Your task to perform on an android device: open app "The Home Depot" (install if not already installed) and go to login screen Image 0: 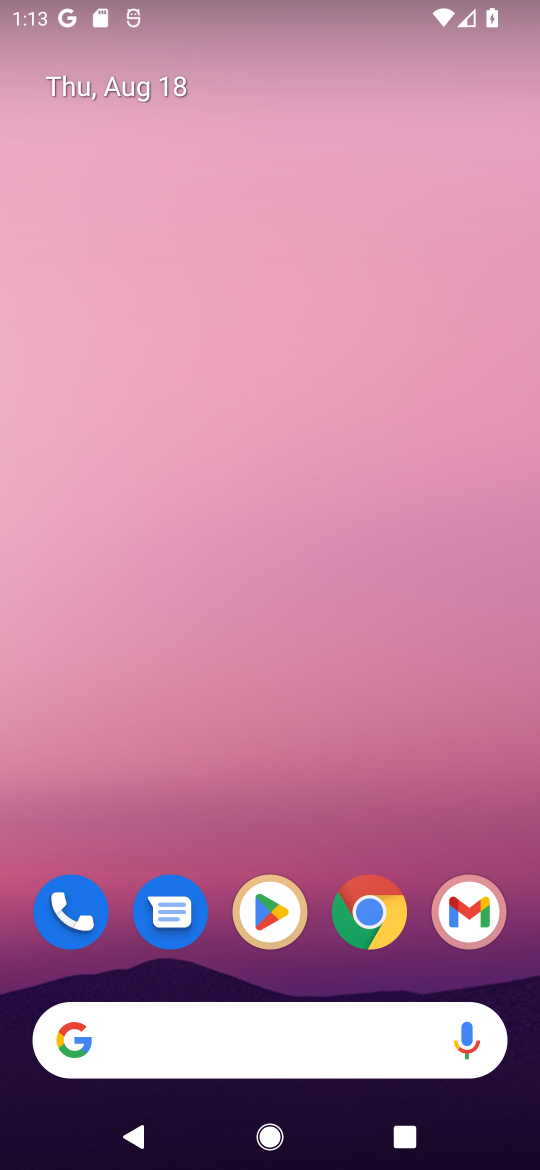
Step 0: click (274, 907)
Your task to perform on an android device: open app "The Home Depot" (install if not already installed) and go to login screen Image 1: 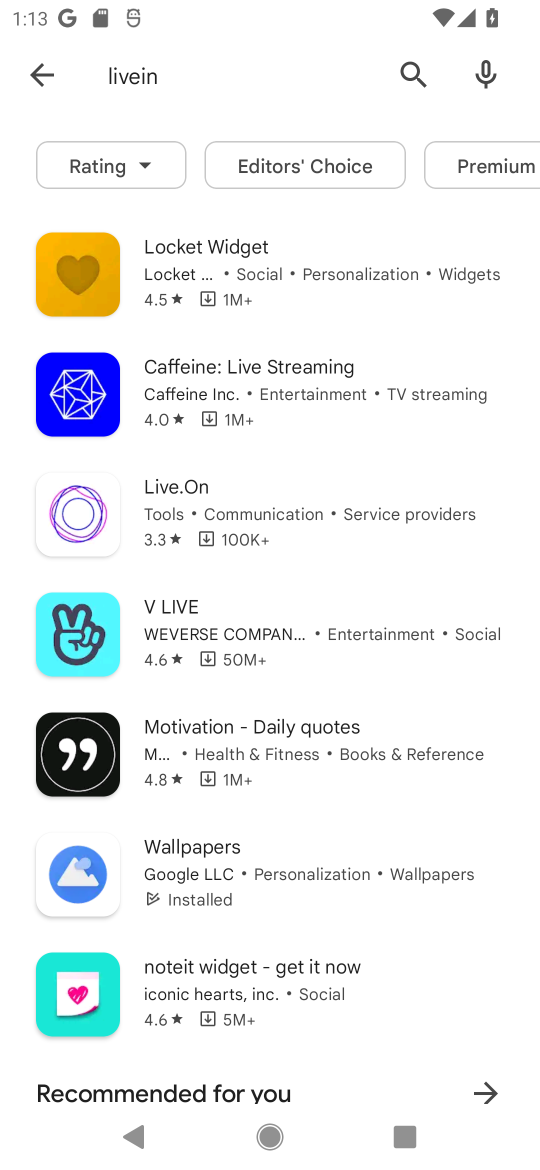
Step 1: click (397, 81)
Your task to perform on an android device: open app "The Home Depot" (install if not already installed) and go to login screen Image 2: 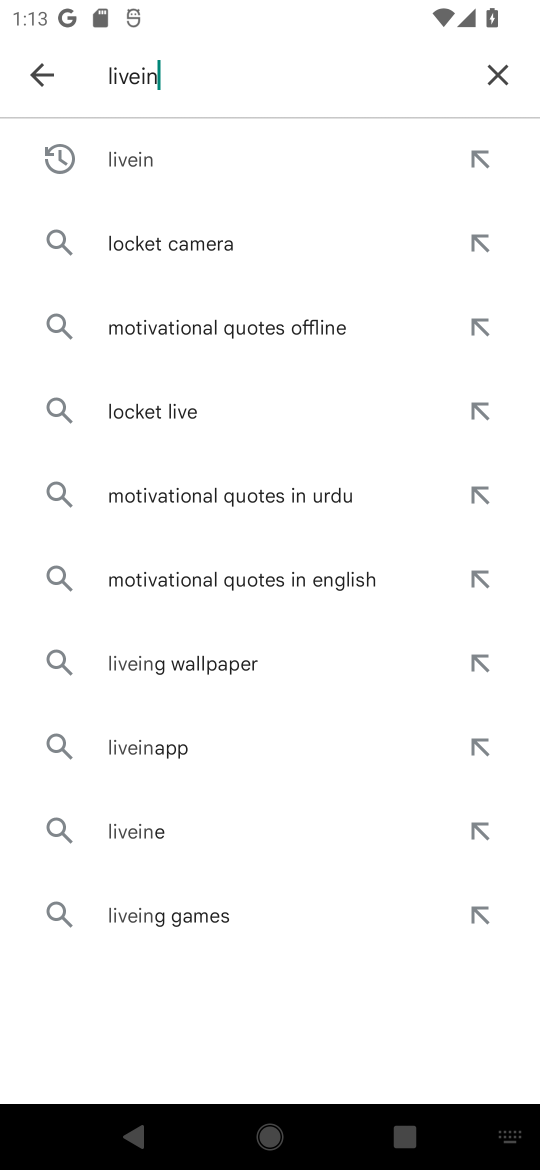
Step 2: click (482, 81)
Your task to perform on an android device: open app "The Home Depot" (install if not already installed) and go to login screen Image 3: 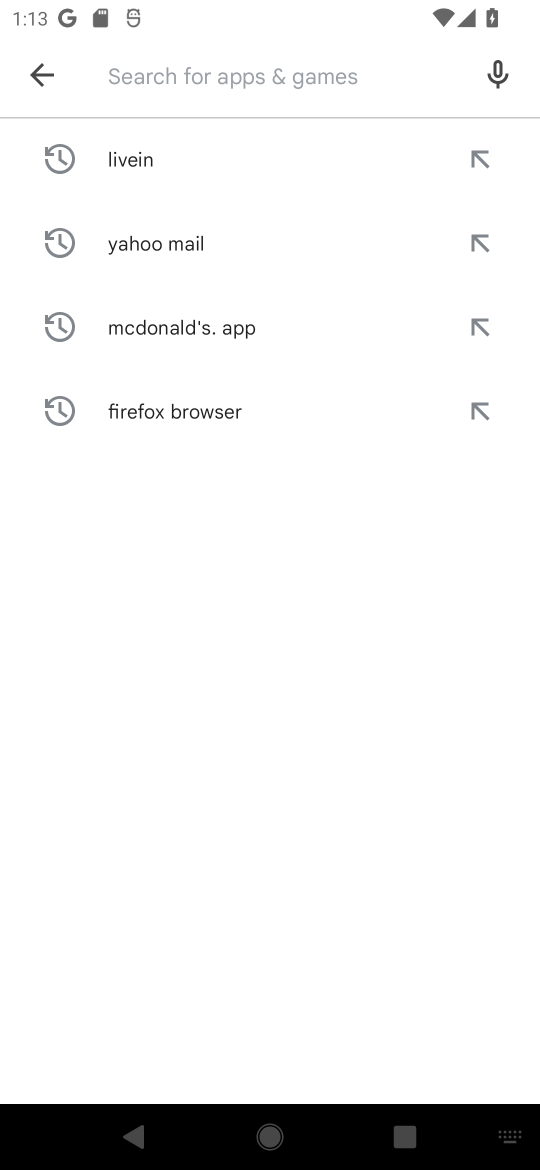
Step 3: click (191, 82)
Your task to perform on an android device: open app "The Home Depot" (install if not already installed) and go to login screen Image 4: 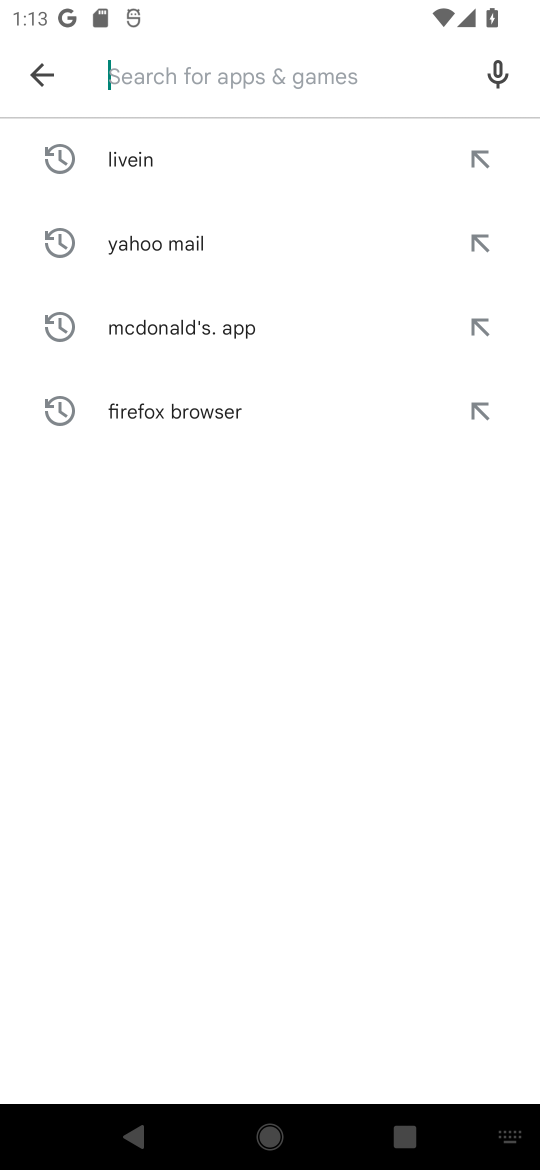
Step 4: type "The Home Depot"
Your task to perform on an android device: open app "The Home Depot" (install if not already installed) and go to login screen Image 5: 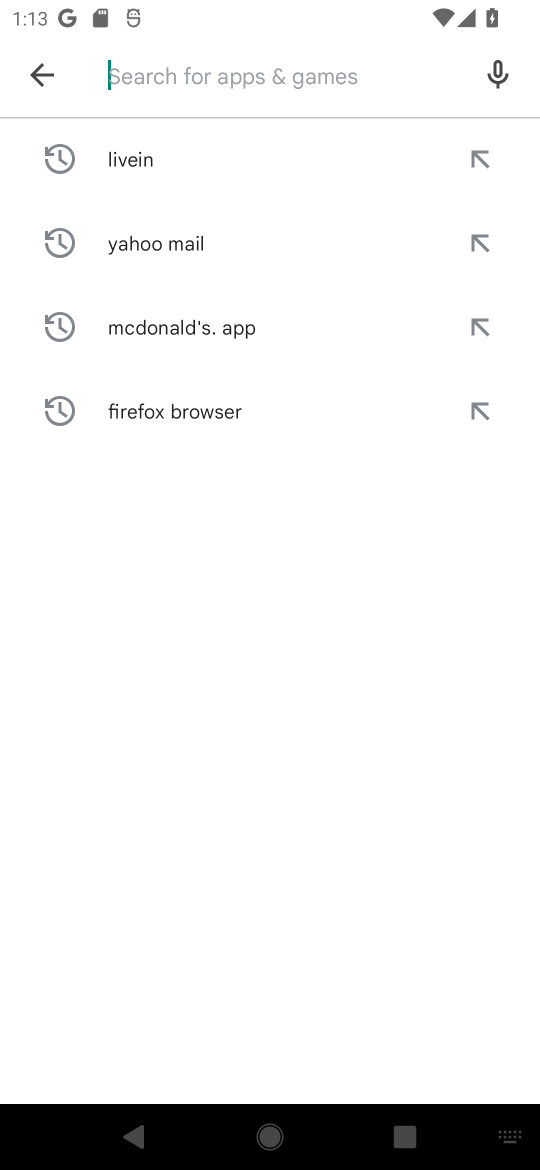
Step 5: click (325, 744)
Your task to perform on an android device: open app "The Home Depot" (install if not already installed) and go to login screen Image 6: 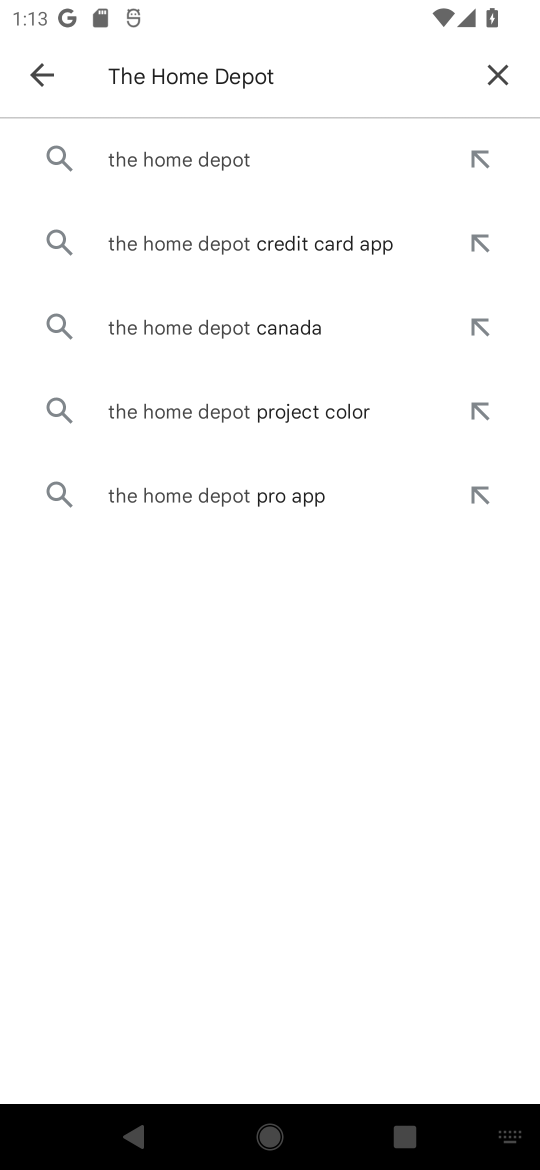
Step 6: click (176, 151)
Your task to perform on an android device: open app "The Home Depot" (install if not already installed) and go to login screen Image 7: 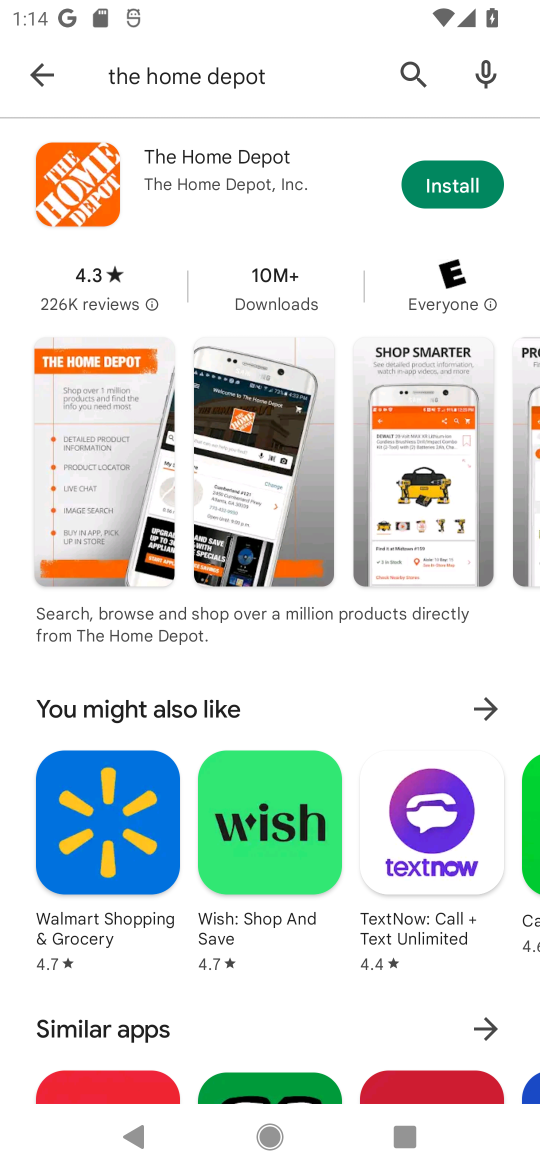
Step 7: click (462, 179)
Your task to perform on an android device: open app "The Home Depot" (install if not already installed) and go to login screen Image 8: 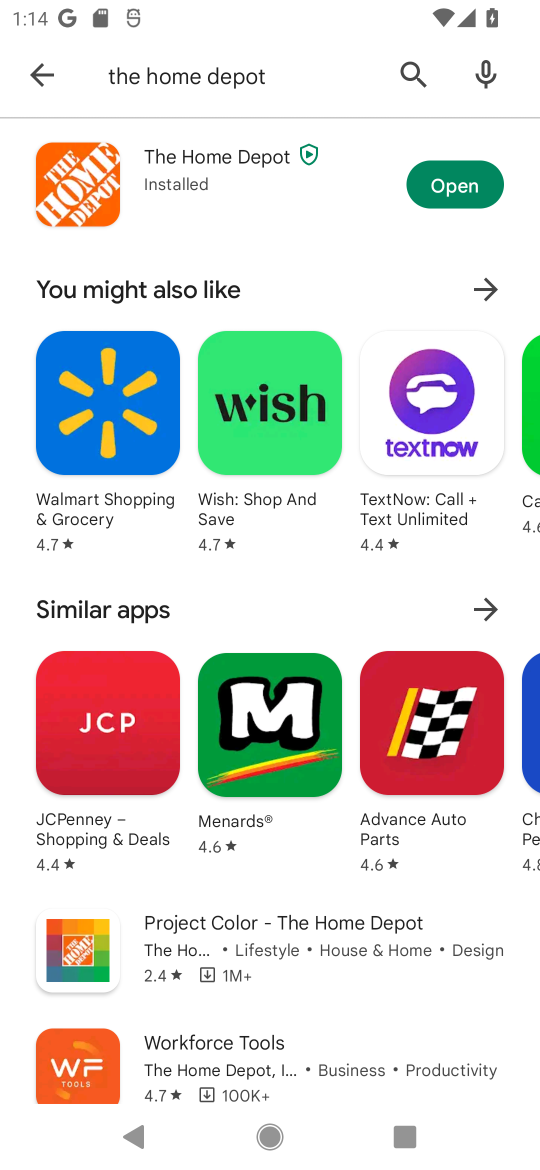
Step 8: click (470, 187)
Your task to perform on an android device: open app "The Home Depot" (install if not already installed) and go to login screen Image 9: 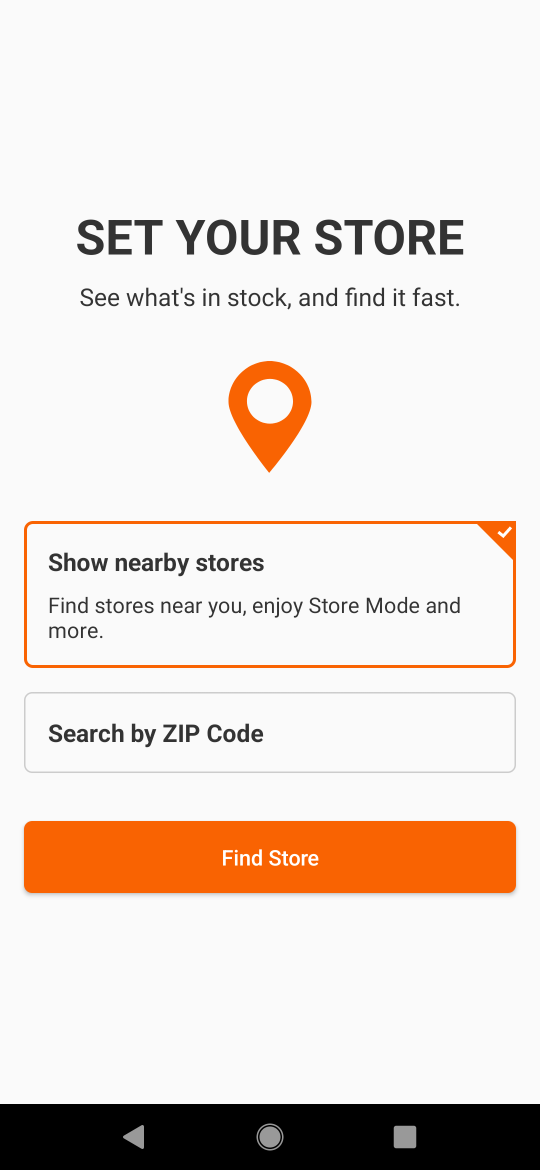
Step 9: task complete